Your task to perform on an android device: turn on javascript in the chrome app Image 0: 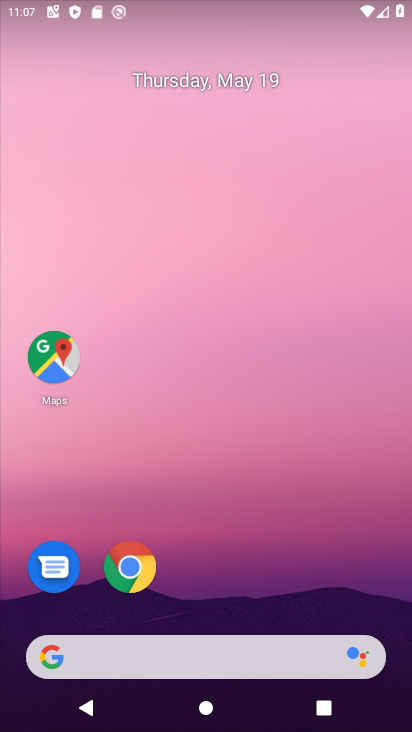
Step 0: click (136, 570)
Your task to perform on an android device: turn on javascript in the chrome app Image 1: 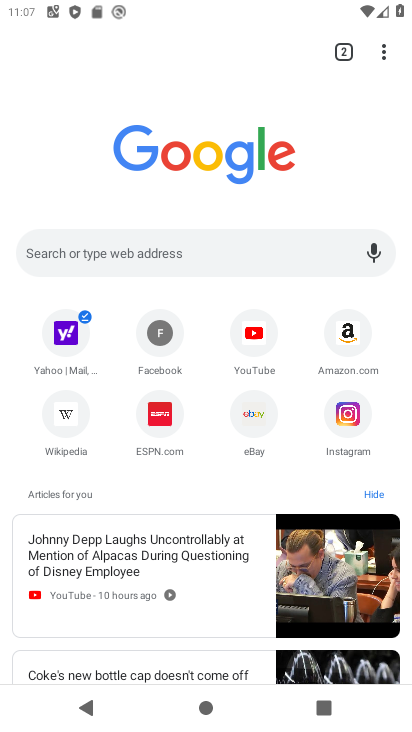
Step 1: click (381, 56)
Your task to perform on an android device: turn on javascript in the chrome app Image 2: 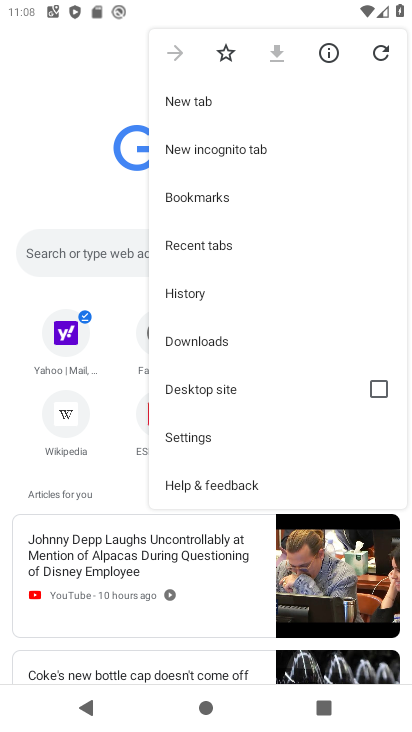
Step 2: click (185, 433)
Your task to perform on an android device: turn on javascript in the chrome app Image 3: 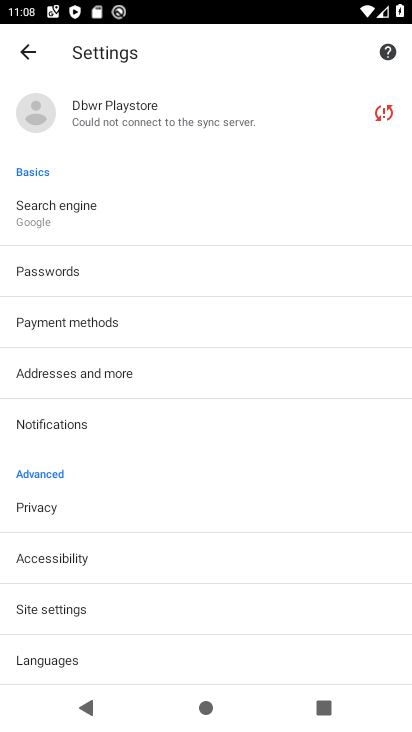
Step 3: click (64, 621)
Your task to perform on an android device: turn on javascript in the chrome app Image 4: 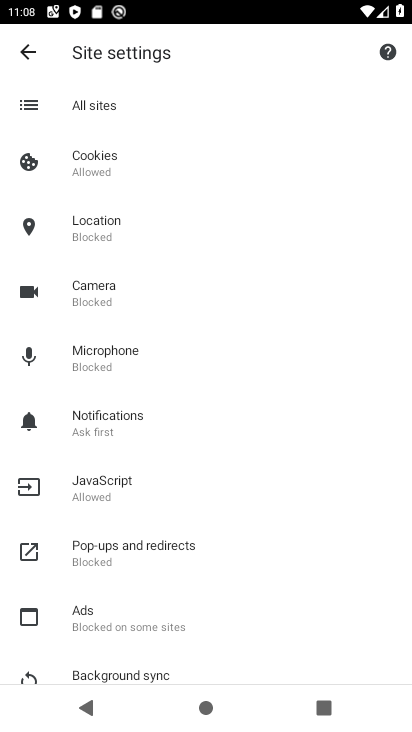
Step 4: click (84, 486)
Your task to perform on an android device: turn on javascript in the chrome app Image 5: 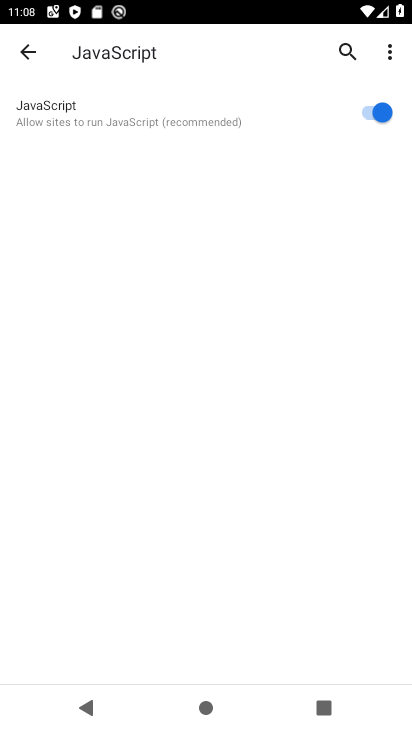
Step 5: task complete